Your task to perform on an android device: turn off airplane mode Image 0: 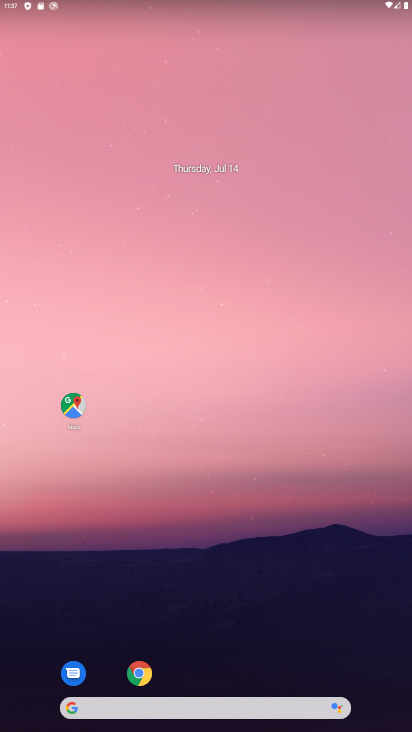
Step 0: drag from (206, 667) to (363, 159)
Your task to perform on an android device: turn off airplane mode Image 1: 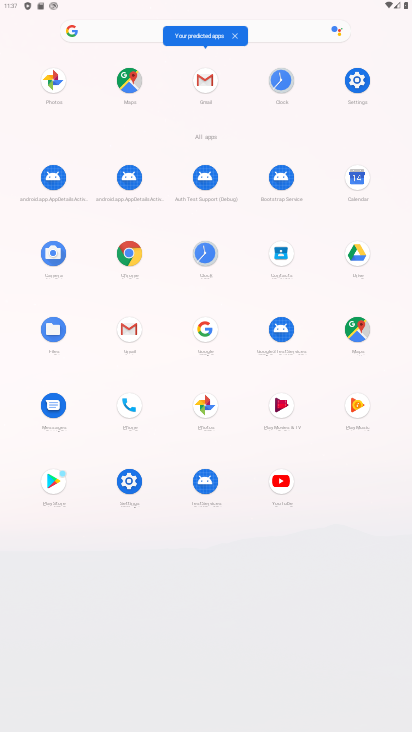
Step 1: click (126, 486)
Your task to perform on an android device: turn off airplane mode Image 2: 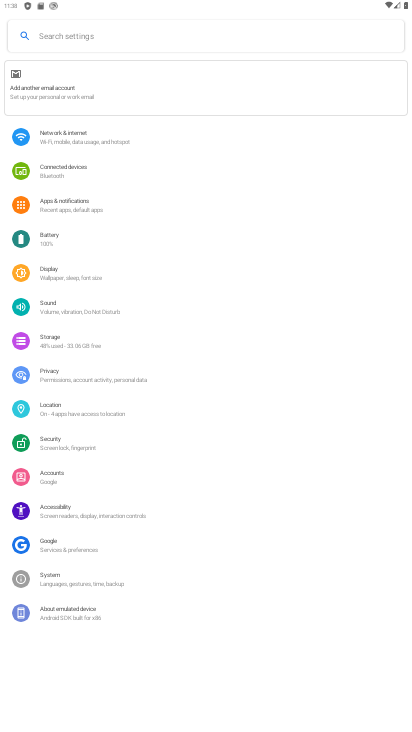
Step 2: click (123, 148)
Your task to perform on an android device: turn off airplane mode Image 3: 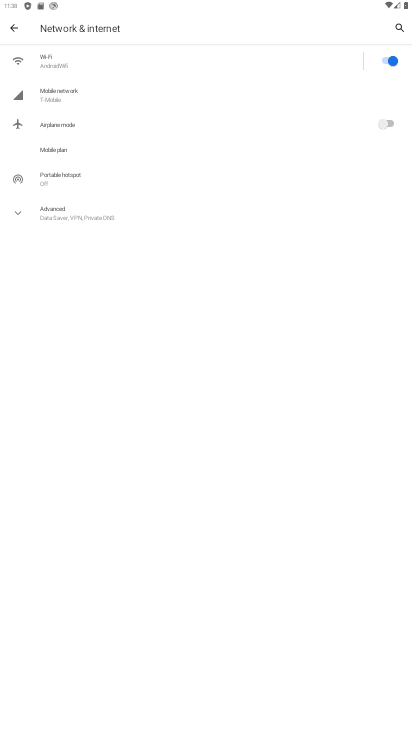
Step 3: task complete